Your task to perform on an android device: open app "YouTube Kids" Image 0: 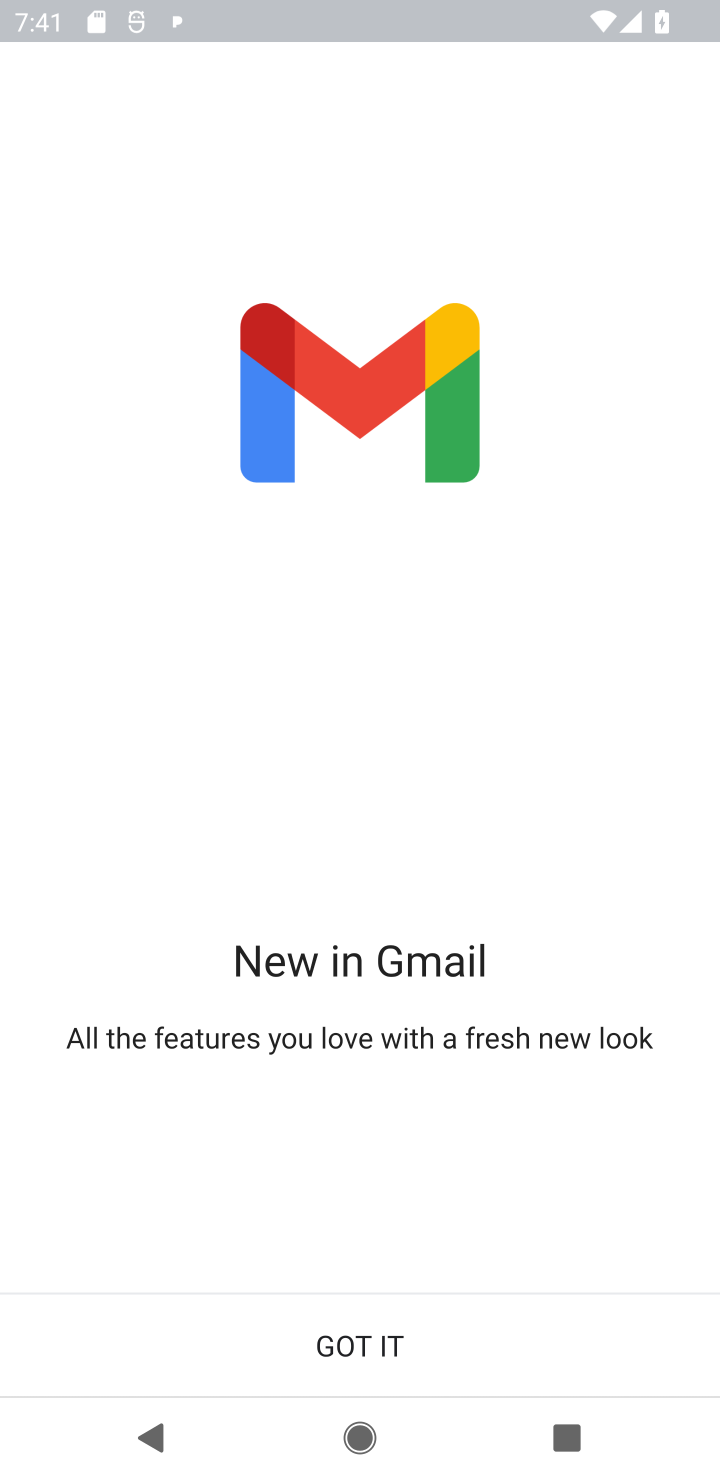
Step 0: press home button
Your task to perform on an android device: open app "YouTube Kids" Image 1: 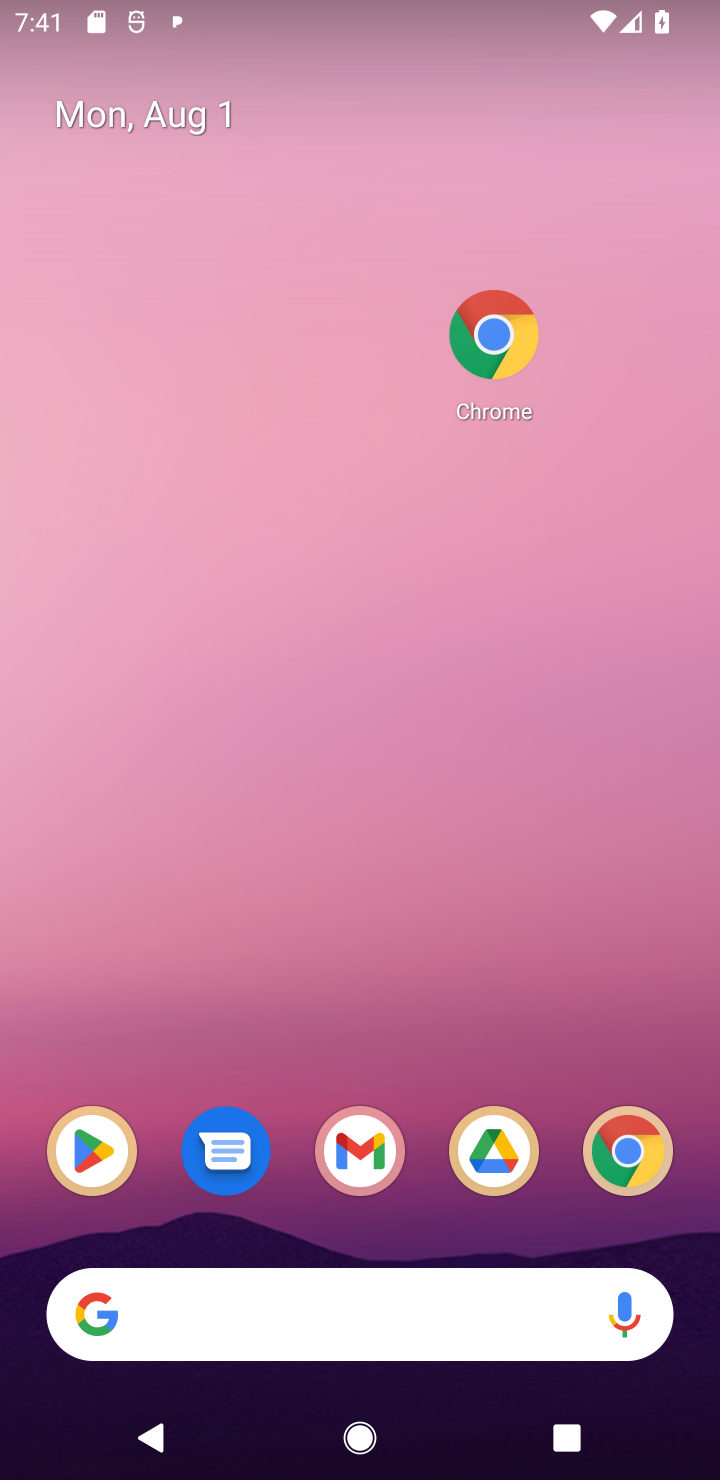
Step 1: click (81, 1153)
Your task to perform on an android device: open app "YouTube Kids" Image 2: 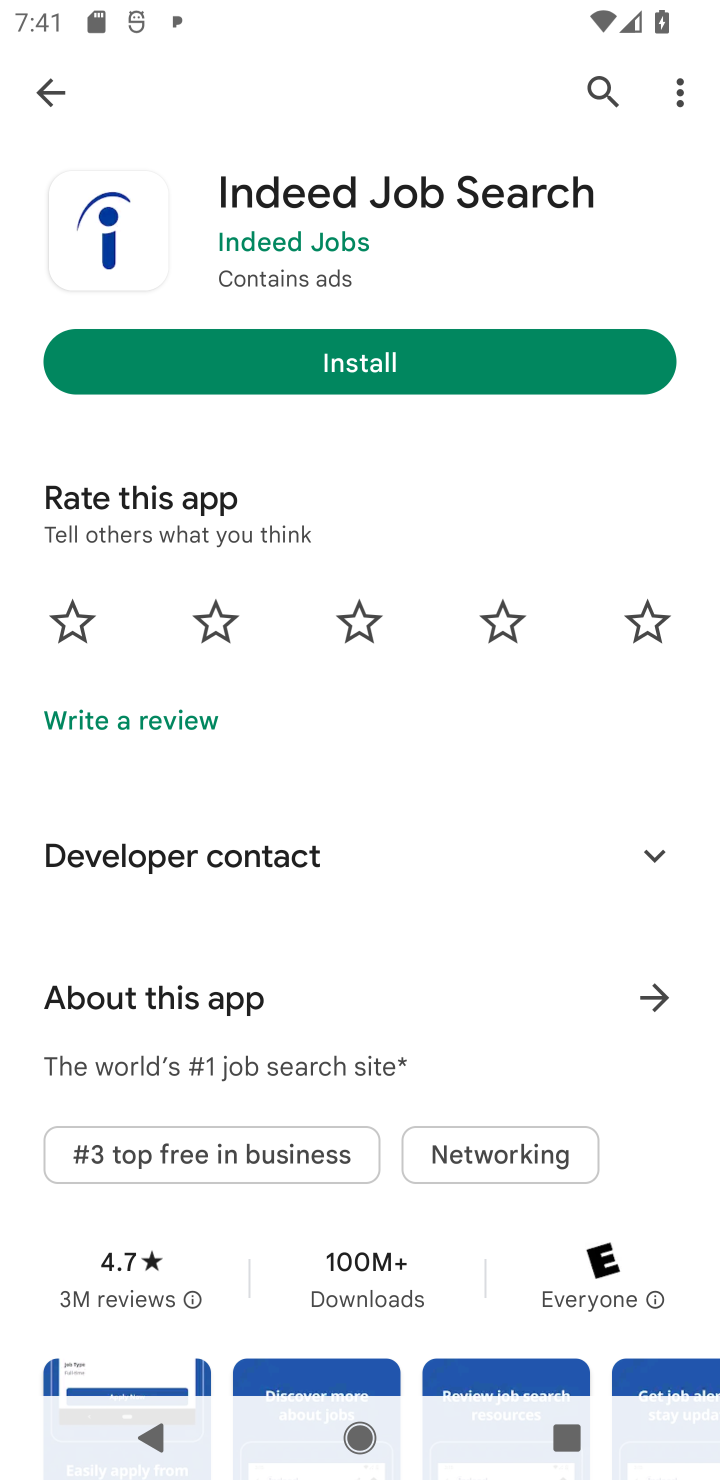
Step 2: click (601, 100)
Your task to perform on an android device: open app "YouTube Kids" Image 3: 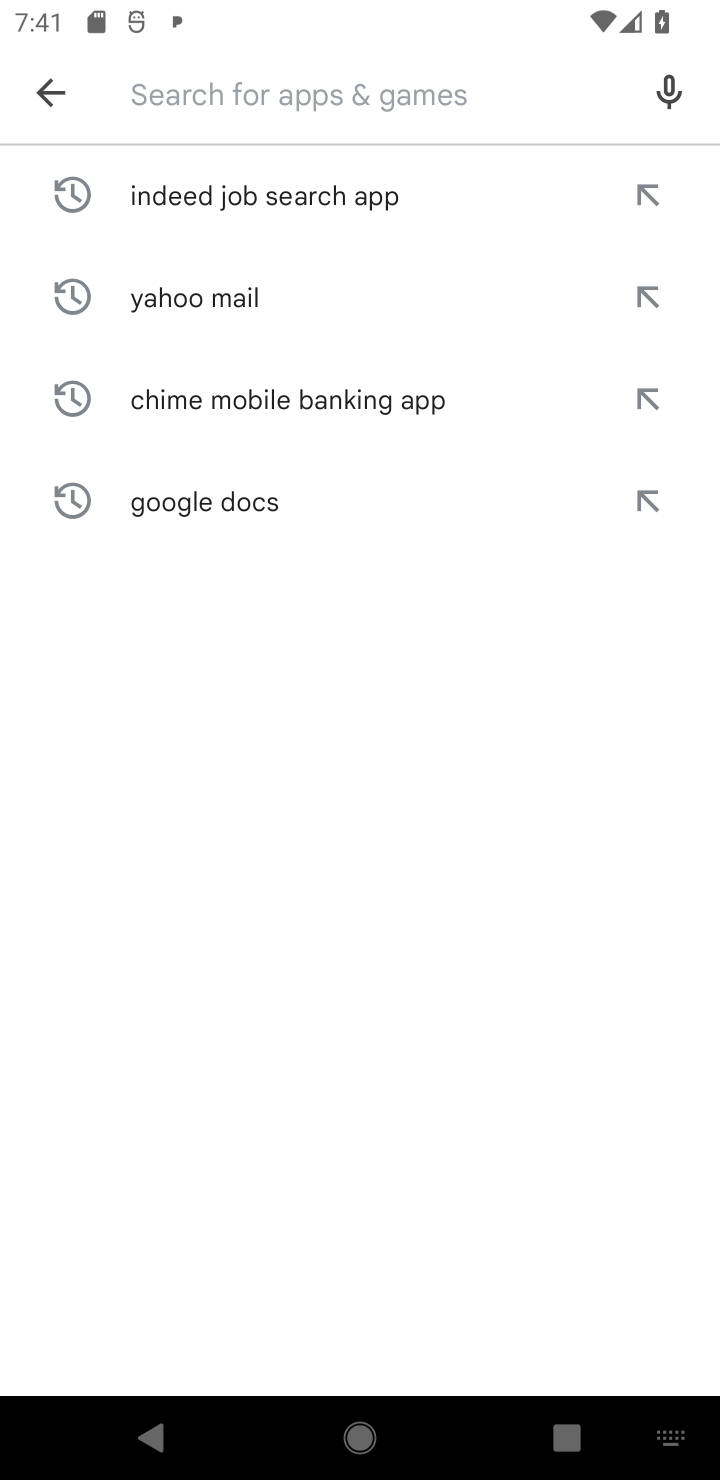
Step 3: type "YouTube Kids"
Your task to perform on an android device: open app "YouTube Kids" Image 4: 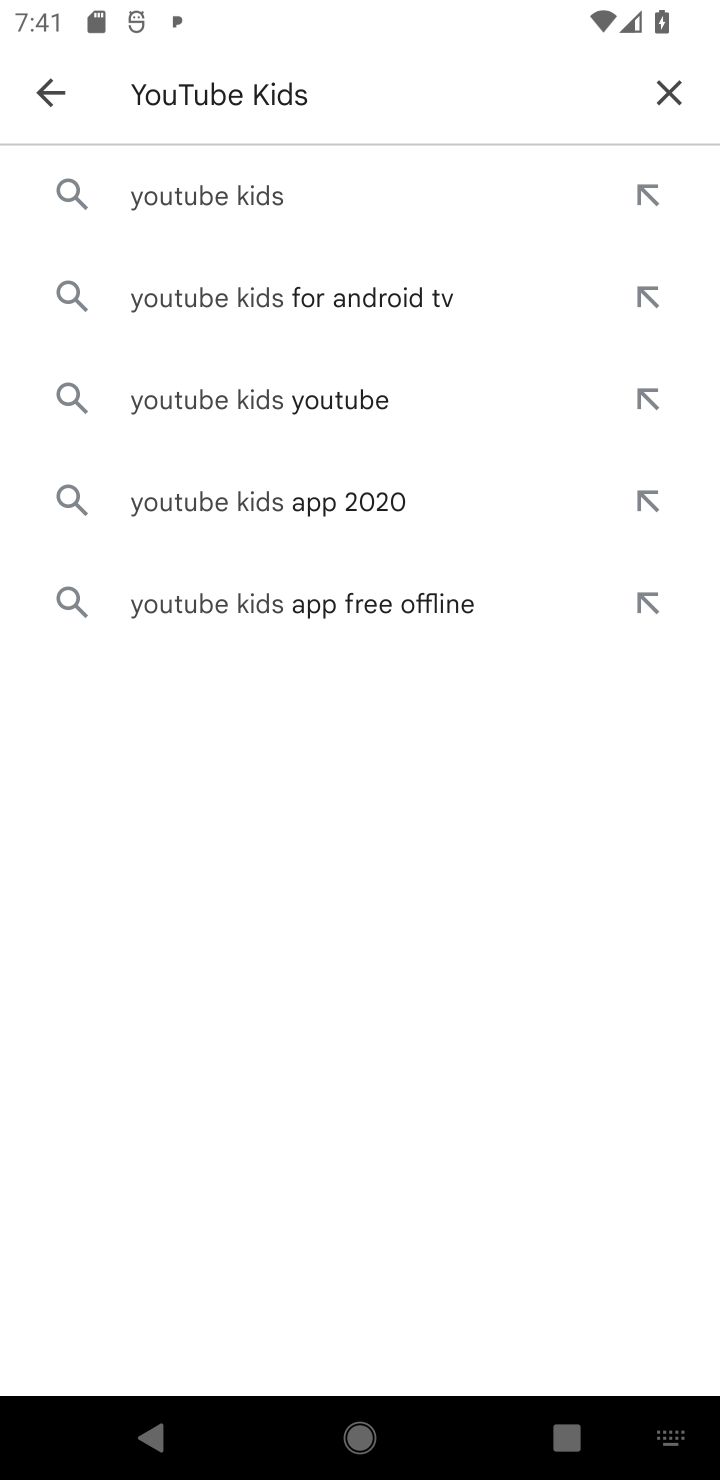
Step 4: click (230, 186)
Your task to perform on an android device: open app "YouTube Kids" Image 5: 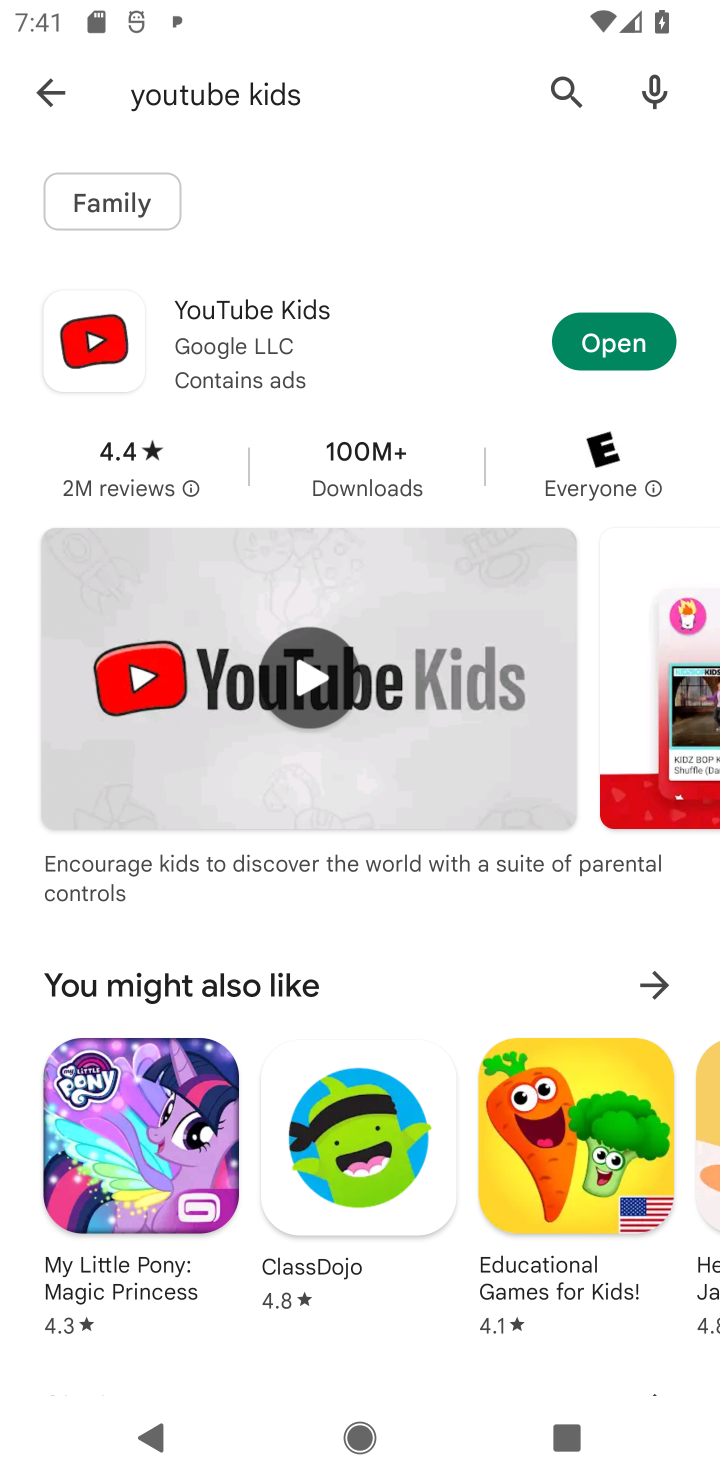
Step 5: click (613, 340)
Your task to perform on an android device: open app "YouTube Kids" Image 6: 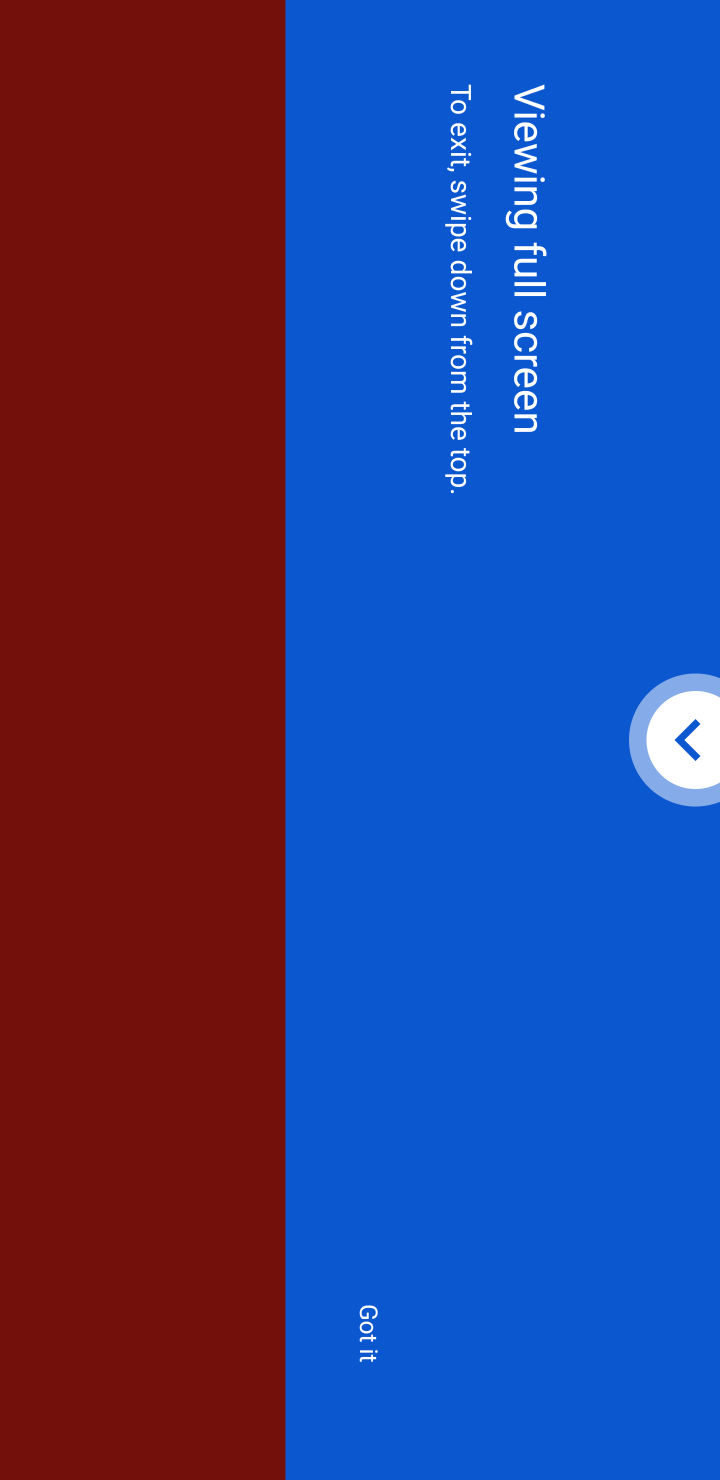
Step 6: task complete